Your task to perform on an android device: turn off translation in the chrome app Image 0: 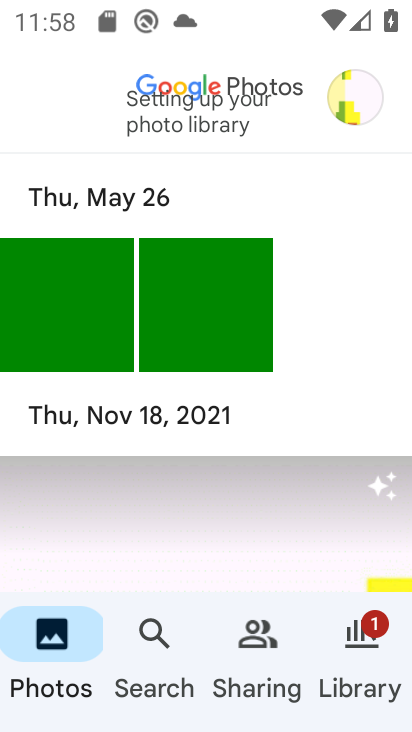
Step 0: press home button
Your task to perform on an android device: turn off translation in the chrome app Image 1: 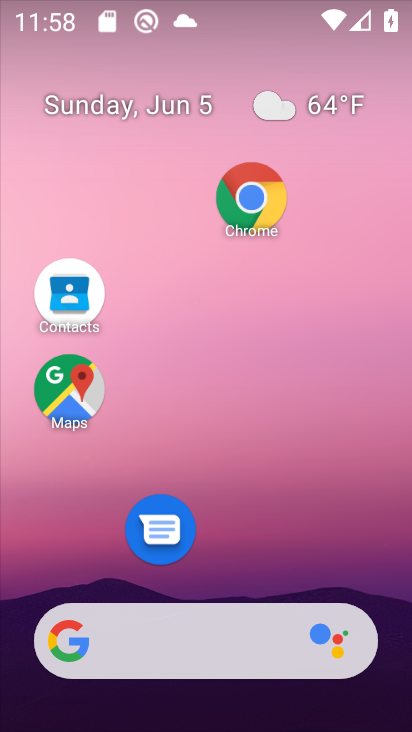
Step 1: click (257, 191)
Your task to perform on an android device: turn off translation in the chrome app Image 2: 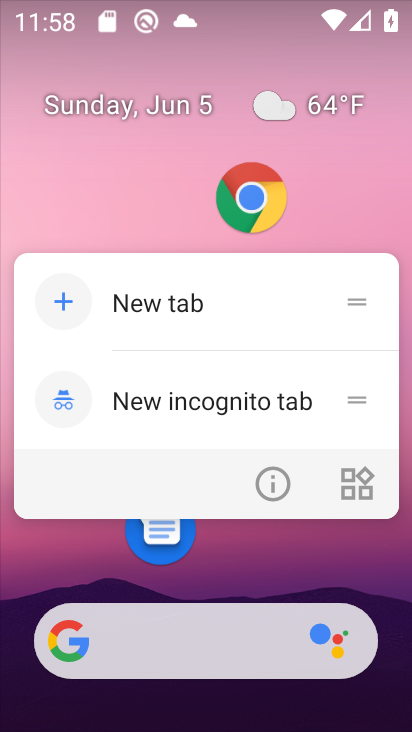
Step 2: click (257, 191)
Your task to perform on an android device: turn off translation in the chrome app Image 3: 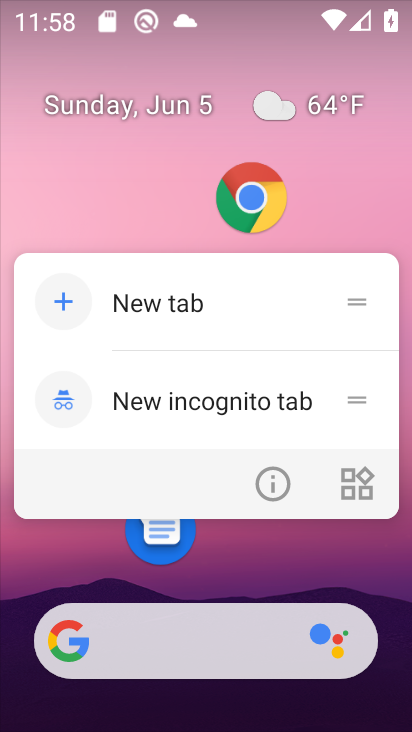
Step 3: click (246, 196)
Your task to perform on an android device: turn off translation in the chrome app Image 4: 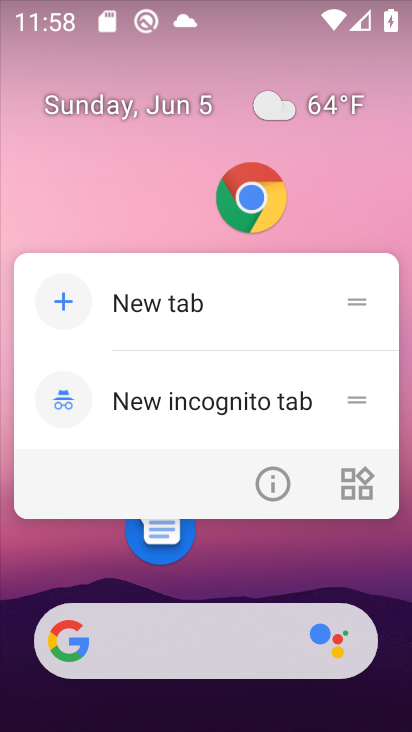
Step 4: click (246, 196)
Your task to perform on an android device: turn off translation in the chrome app Image 5: 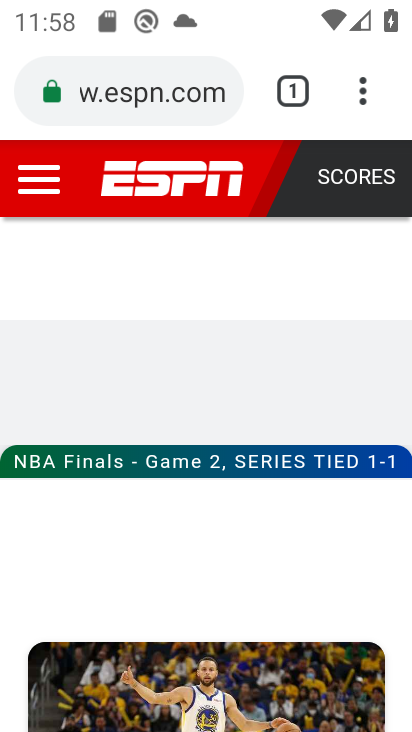
Step 5: click (366, 71)
Your task to perform on an android device: turn off translation in the chrome app Image 6: 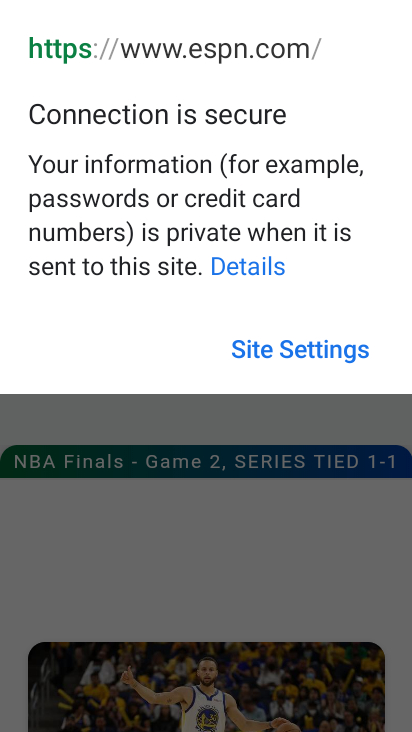
Step 6: click (385, 501)
Your task to perform on an android device: turn off translation in the chrome app Image 7: 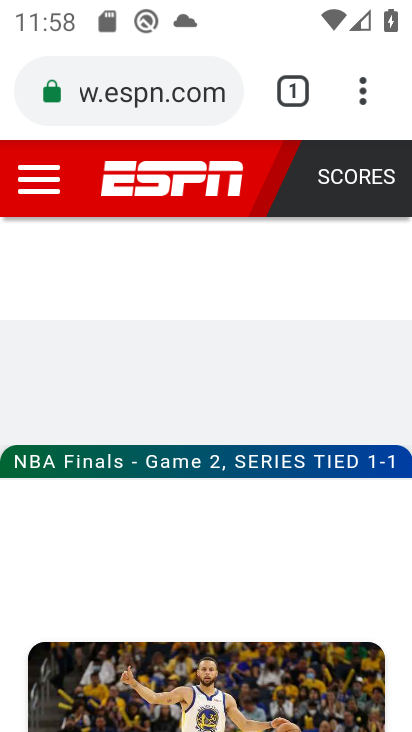
Step 7: click (399, 111)
Your task to perform on an android device: turn off translation in the chrome app Image 8: 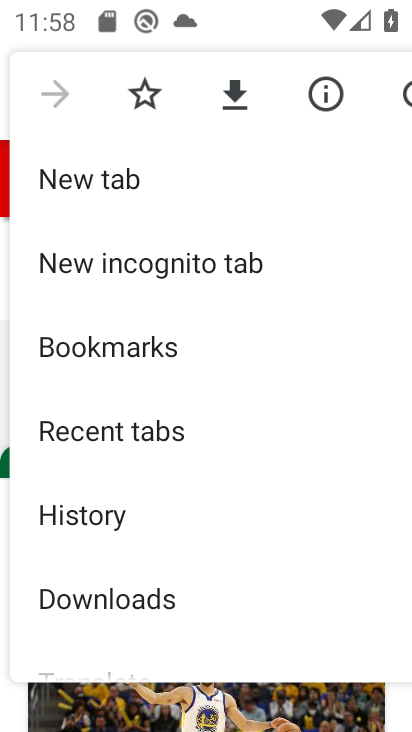
Step 8: drag from (243, 591) to (204, 285)
Your task to perform on an android device: turn off translation in the chrome app Image 9: 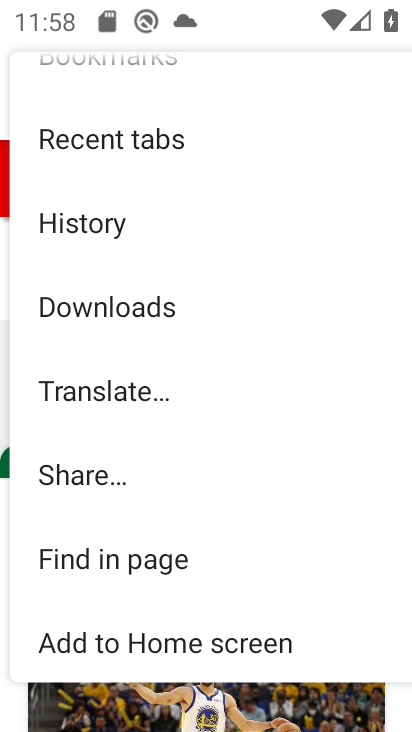
Step 9: drag from (111, 634) to (105, 295)
Your task to perform on an android device: turn off translation in the chrome app Image 10: 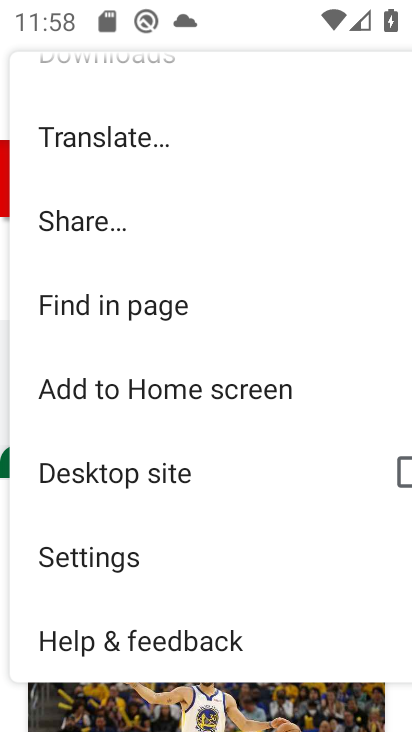
Step 10: click (146, 550)
Your task to perform on an android device: turn off translation in the chrome app Image 11: 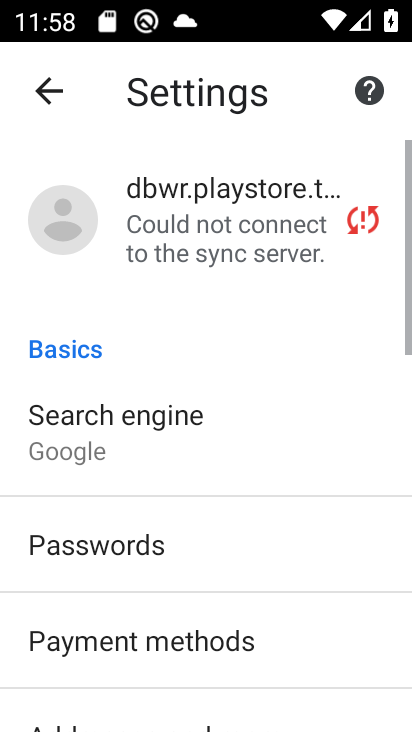
Step 11: drag from (161, 577) to (165, 77)
Your task to perform on an android device: turn off translation in the chrome app Image 12: 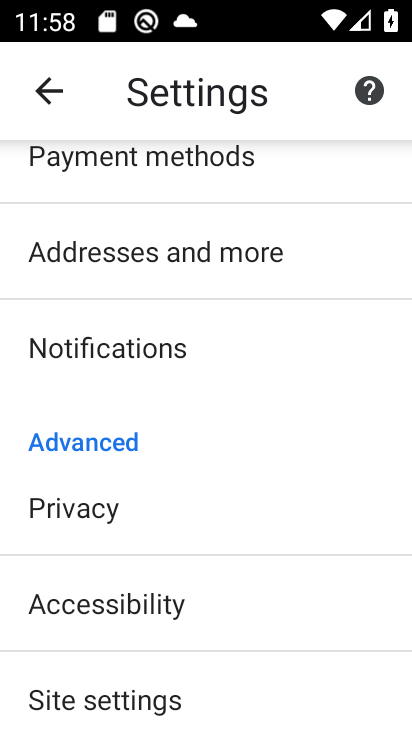
Step 12: drag from (122, 637) to (68, 280)
Your task to perform on an android device: turn off translation in the chrome app Image 13: 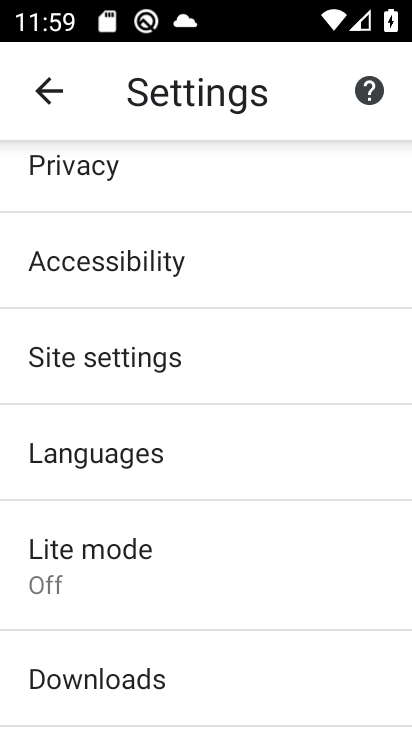
Step 13: click (111, 462)
Your task to perform on an android device: turn off translation in the chrome app Image 14: 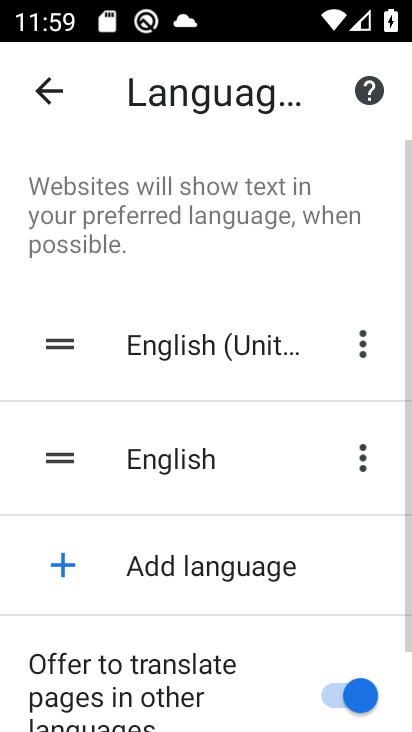
Step 14: click (335, 712)
Your task to perform on an android device: turn off translation in the chrome app Image 15: 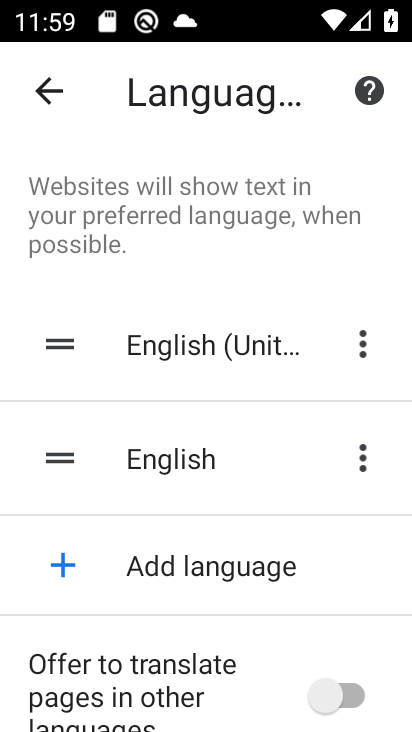
Step 15: task complete